Your task to perform on an android device: open app "Firefox Browser" (install if not already installed) Image 0: 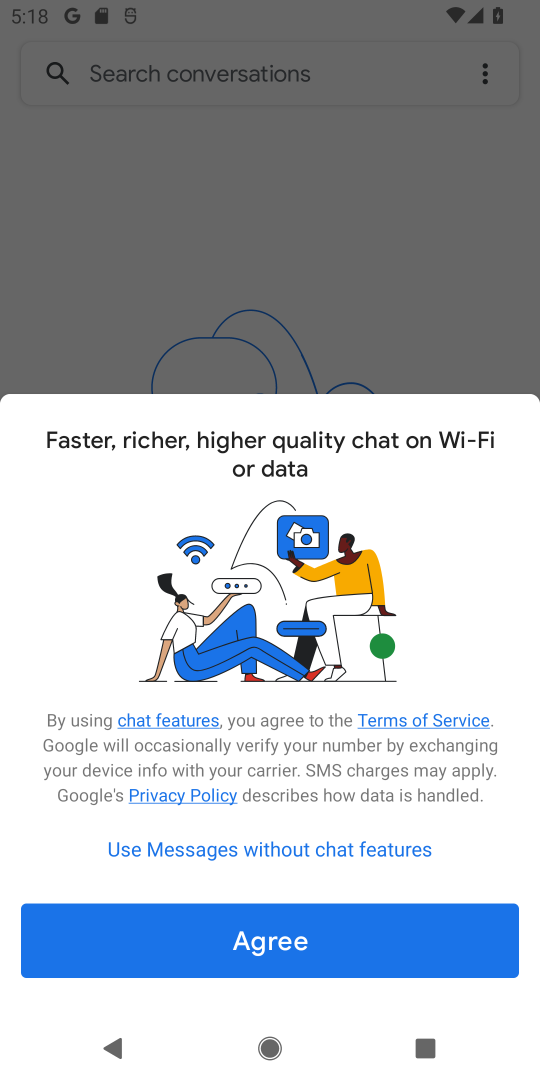
Step 0: press back button
Your task to perform on an android device: open app "Firefox Browser" (install if not already installed) Image 1: 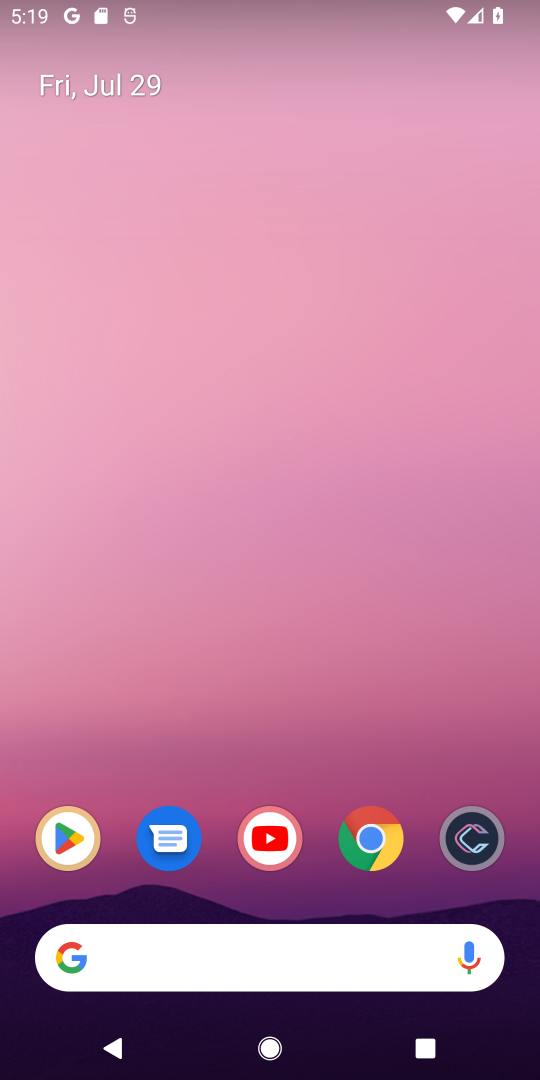
Step 1: click (71, 835)
Your task to perform on an android device: open app "Firefox Browser" (install if not already installed) Image 2: 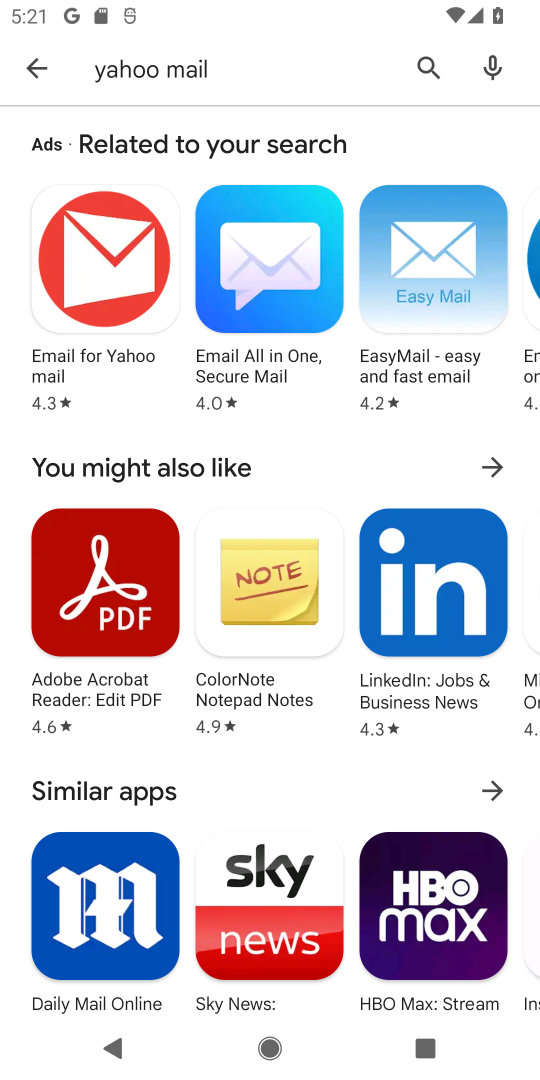
Step 2: click (422, 55)
Your task to perform on an android device: open app "Firefox Browser" (install if not already installed) Image 3: 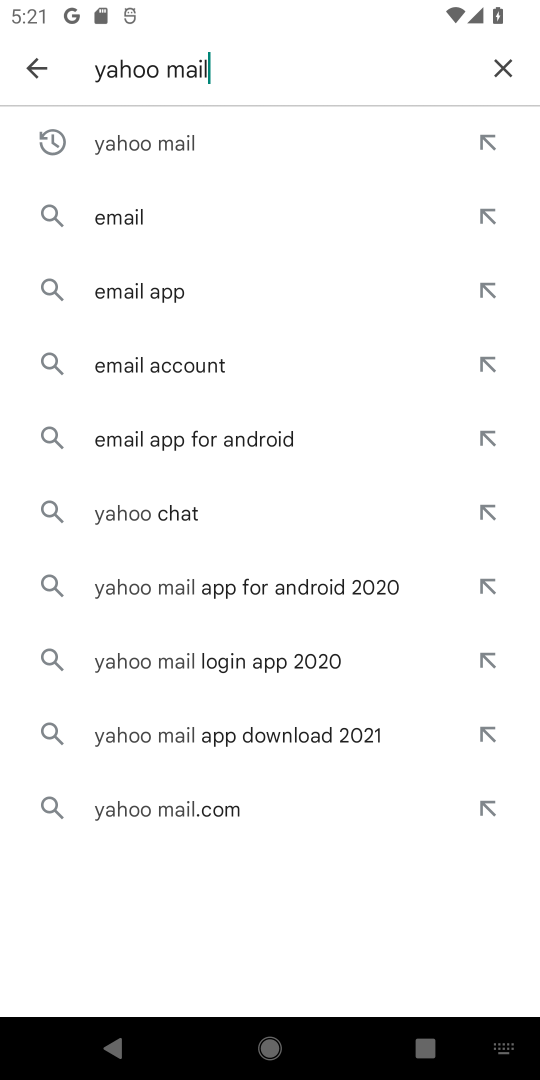
Step 3: click (493, 63)
Your task to perform on an android device: open app "Firefox Browser" (install if not already installed) Image 4: 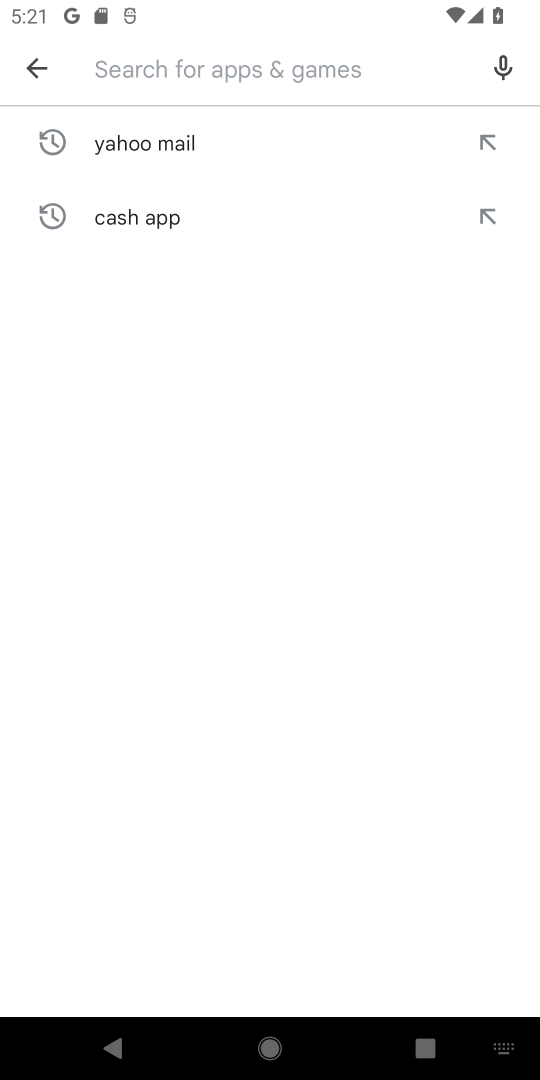
Step 4: click (258, 69)
Your task to perform on an android device: open app "Firefox Browser" (install if not already installed) Image 5: 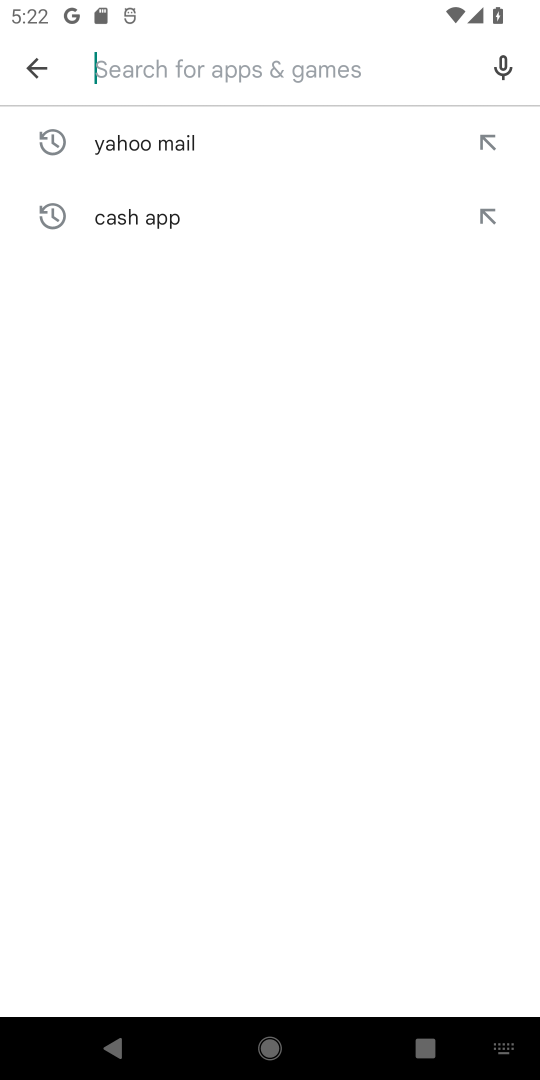
Step 5: type "firefox browser"
Your task to perform on an android device: open app "Firefox Browser" (install if not already installed) Image 6: 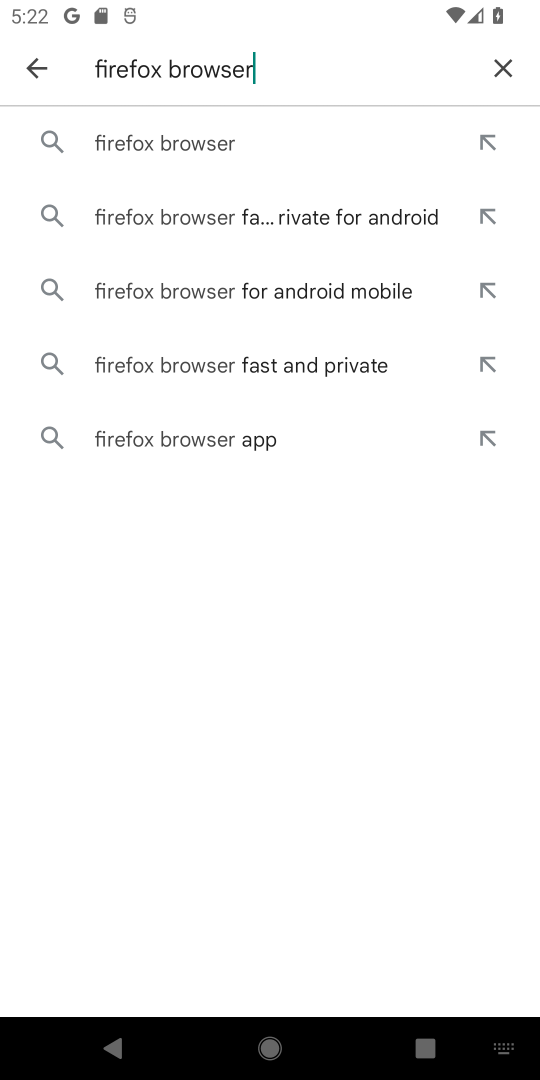
Step 6: click (161, 137)
Your task to perform on an android device: open app "Firefox Browser" (install if not already installed) Image 7: 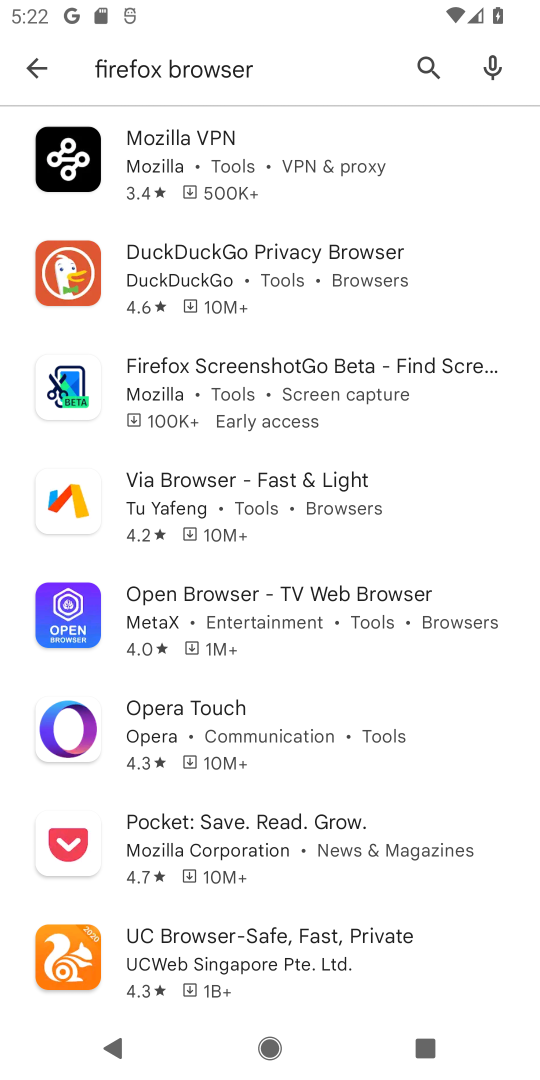
Step 7: task complete